Your task to perform on an android device: Search for vegetarian restaurants on Maps Image 0: 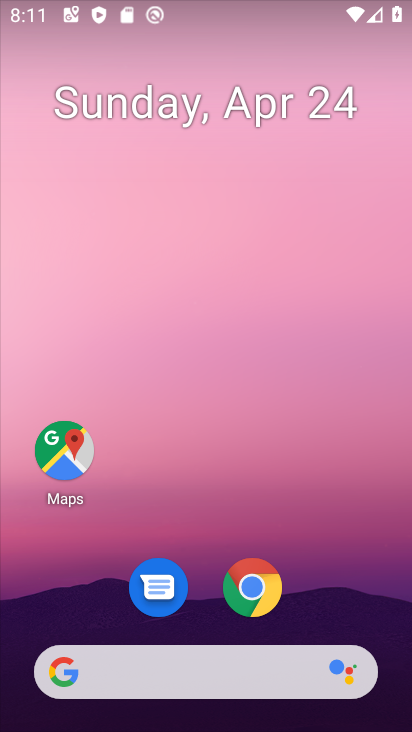
Step 0: click (73, 458)
Your task to perform on an android device: Search for vegetarian restaurants on Maps Image 1: 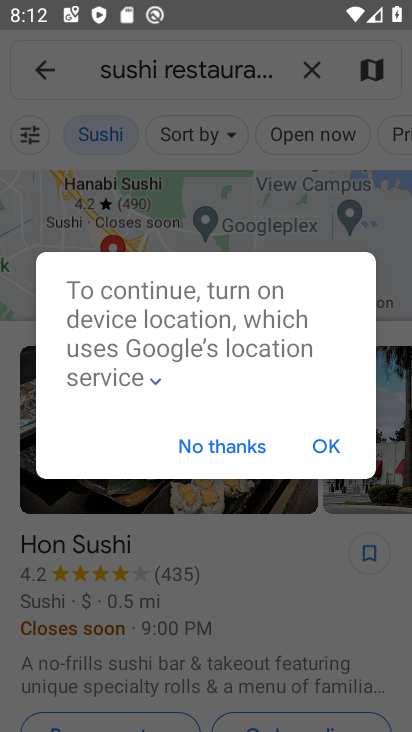
Step 1: click (318, 443)
Your task to perform on an android device: Search for vegetarian restaurants on Maps Image 2: 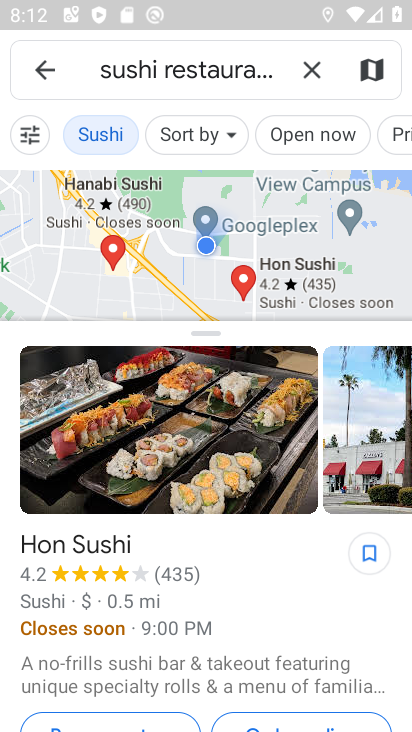
Step 2: click (309, 67)
Your task to perform on an android device: Search for vegetarian restaurants on Maps Image 3: 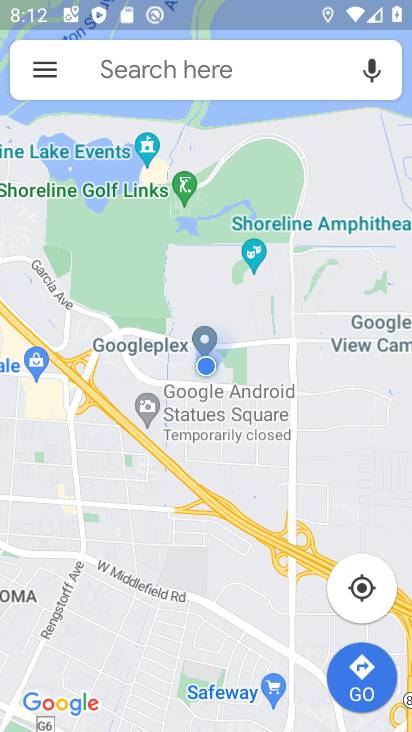
Step 3: click (235, 75)
Your task to perform on an android device: Search for vegetarian restaurants on Maps Image 4: 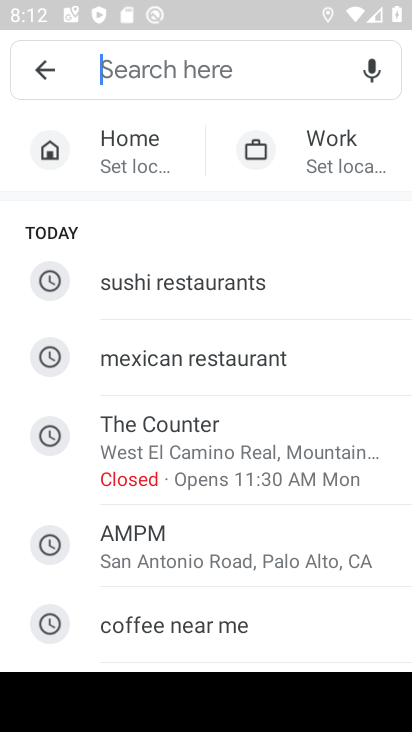
Step 4: type "veg"
Your task to perform on an android device: Search for vegetarian restaurants on Maps Image 5: 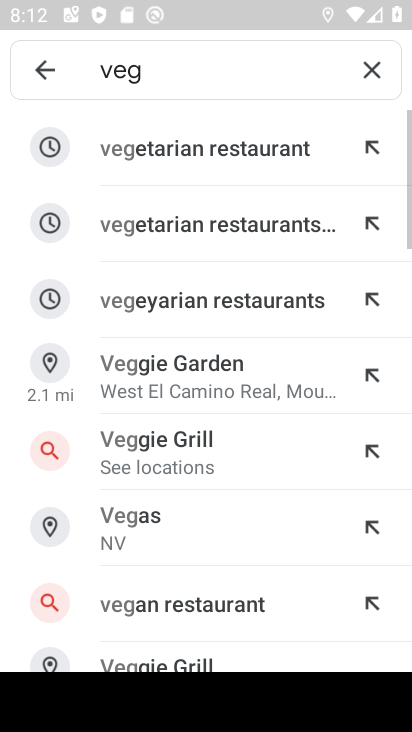
Step 5: click (233, 163)
Your task to perform on an android device: Search for vegetarian restaurants on Maps Image 6: 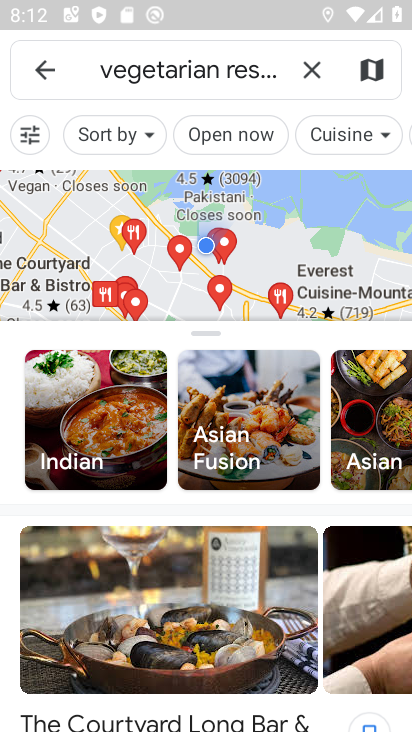
Step 6: task complete